Your task to perform on an android device: Open Google Chrome and open the bookmarks view Image 0: 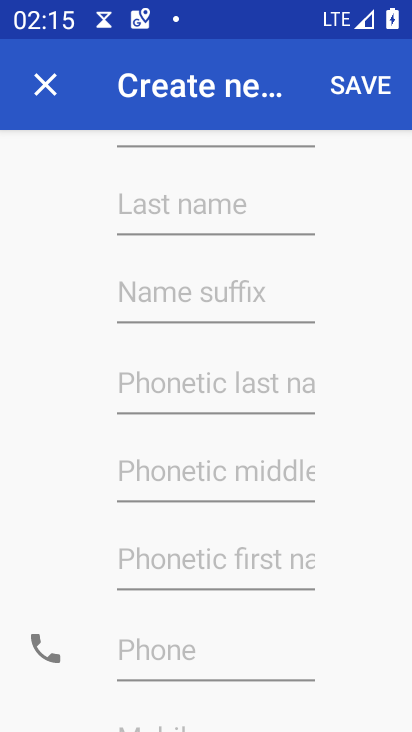
Step 0: press home button
Your task to perform on an android device: Open Google Chrome and open the bookmarks view Image 1: 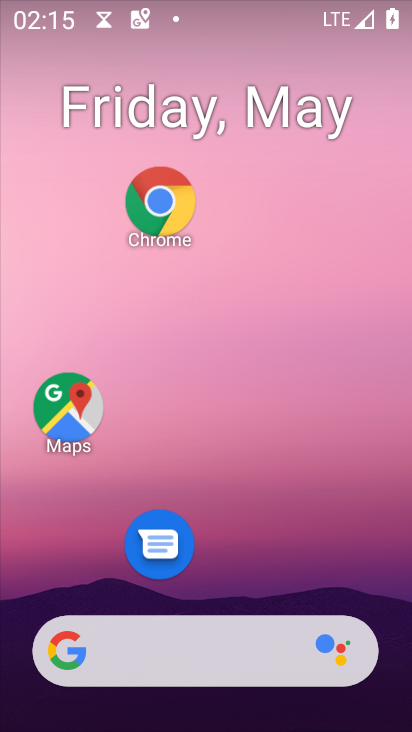
Step 1: drag from (269, 566) to (246, 216)
Your task to perform on an android device: Open Google Chrome and open the bookmarks view Image 2: 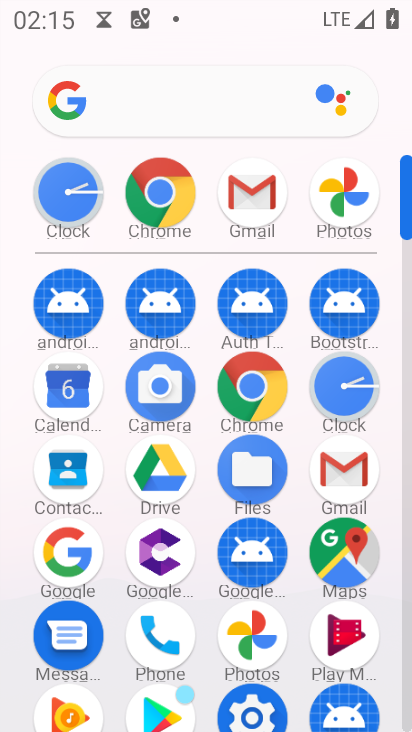
Step 2: click (155, 205)
Your task to perform on an android device: Open Google Chrome and open the bookmarks view Image 3: 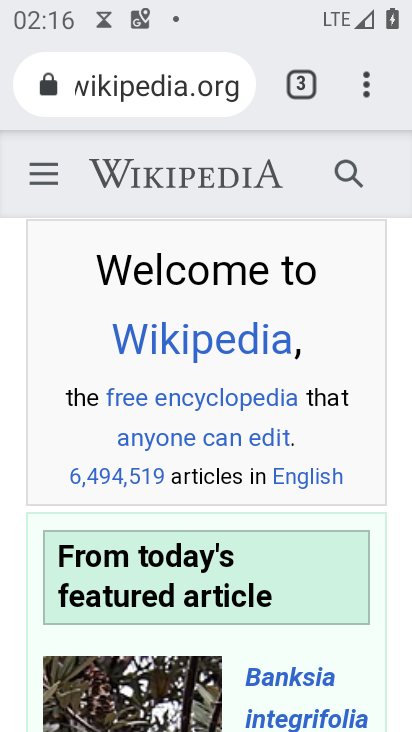
Step 3: click (364, 101)
Your task to perform on an android device: Open Google Chrome and open the bookmarks view Image 4: 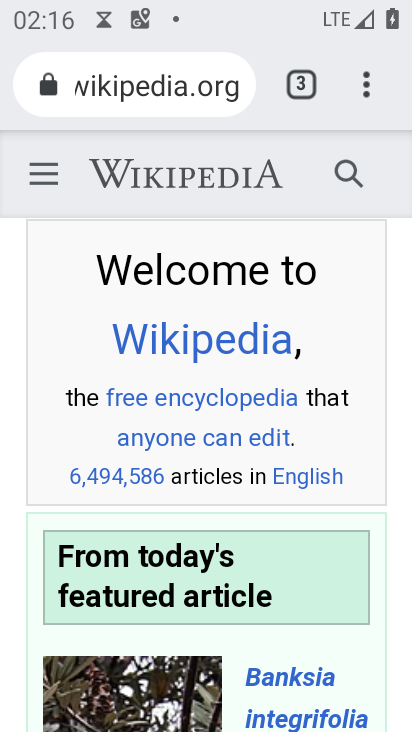
Step 4: click (366, 96)
Your task to perform on an android device: Open Google Chrome and open the bookmarks view Image 5: 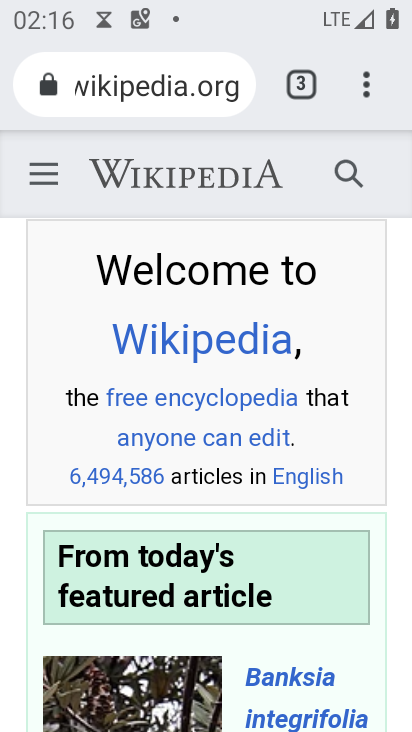
Step 5: click (369, 86)
Your task to perform on an android device: Open Google Chrome and open the bookmarks view Image 6: 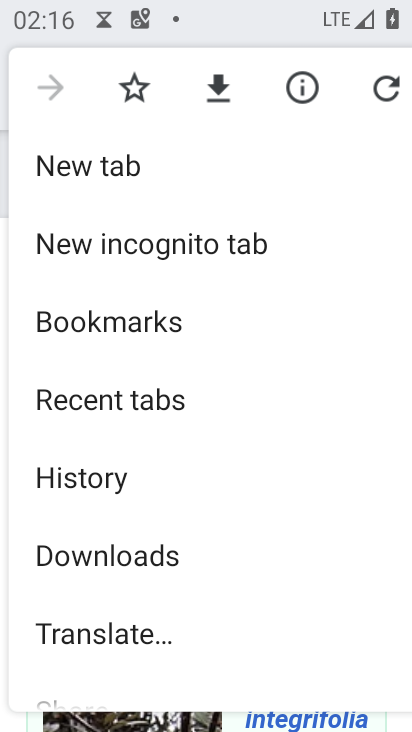
Step 6: click (185, 330)
Your task to perform on an android device: Open Google Chrome and open the bookmarks view Image 7: 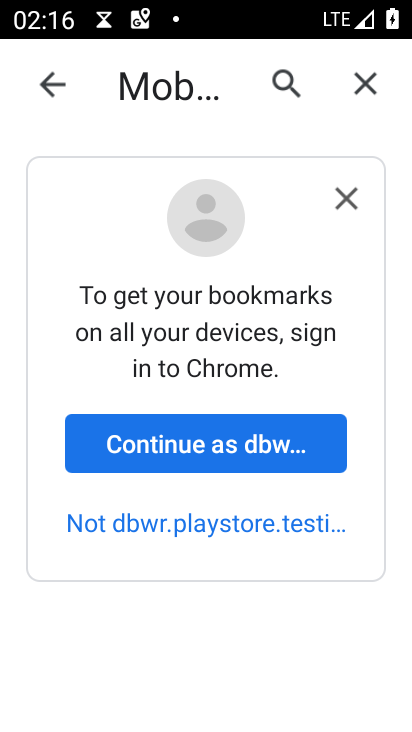
Step 7: click (214, 453)
Your task to perform on an android device: Open Google Chrome and open the bookmarks view Image 8: 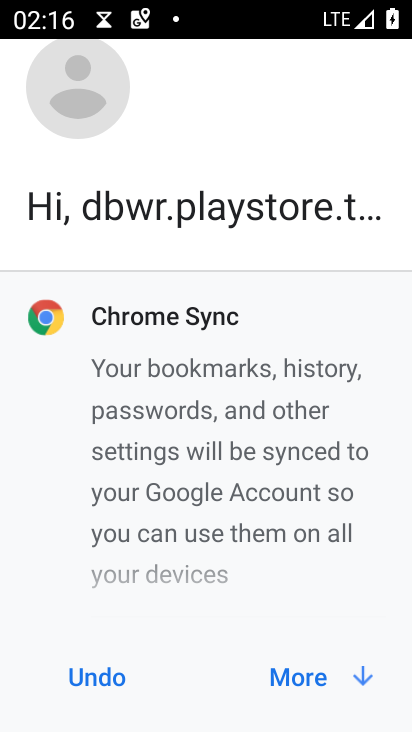
Step 8: click (328, 673)
Your task to perform on an android device: Open Google Chrome and open the bookmarks view Image 9: 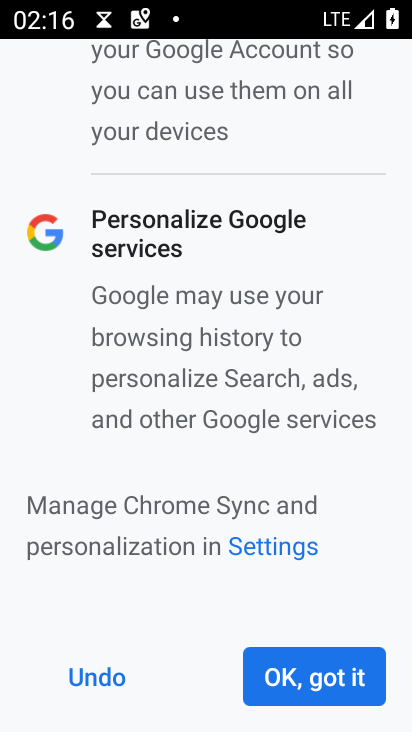
Step 9: click (328, 673)
Your task to perform on an android device: Open Google Chrome and open the bookmarks view Image 10: 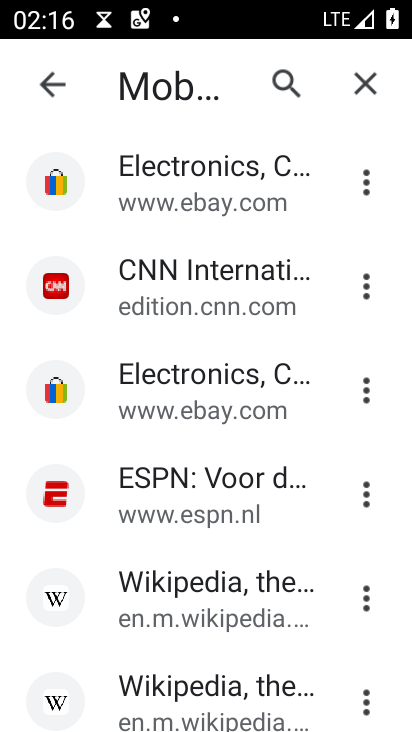
Step 10: task complete